Your task to perform on an android device: What's the weather going to be tomorrow? Image 0: 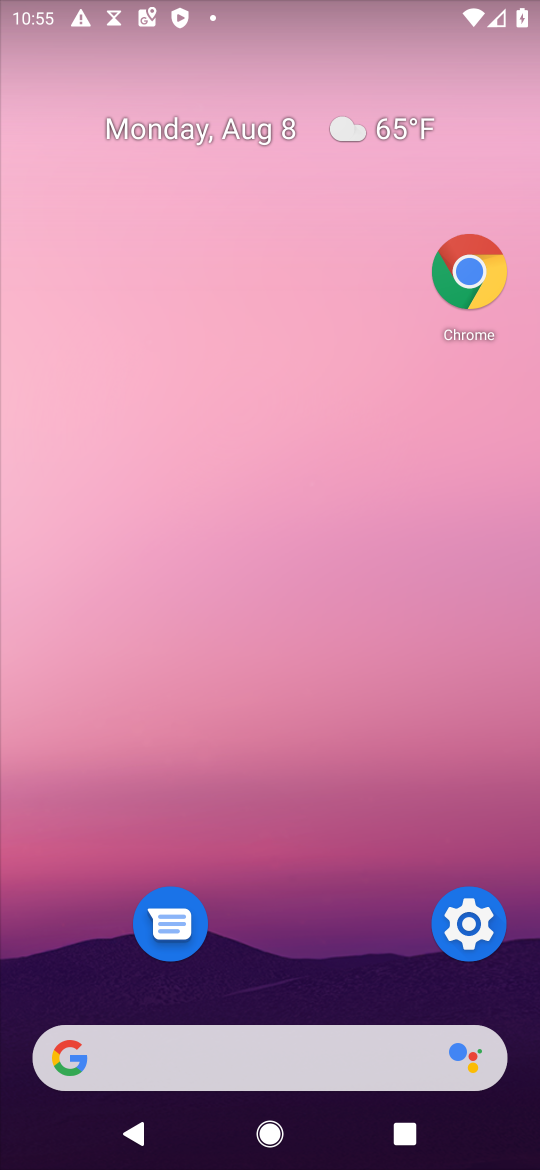
Step 0: click (197, 192)
Your task to perform on an android device: What's the weather going to be tomorrow? Image 1: 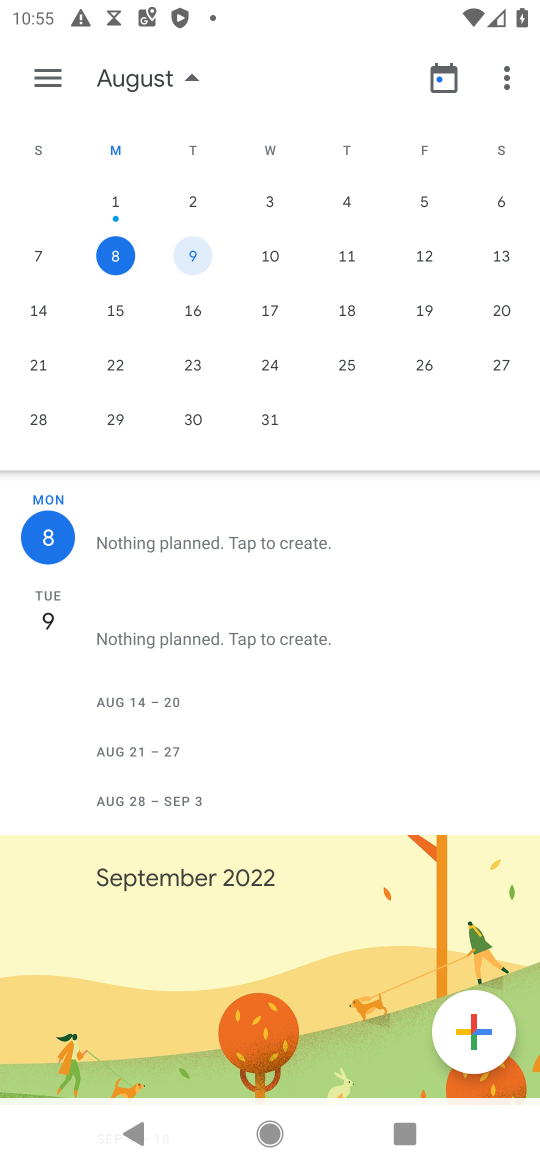
Step 1: click (164, 857)
Your task to perform on an android device: What's the weather going to be tomorrow? Image 2: 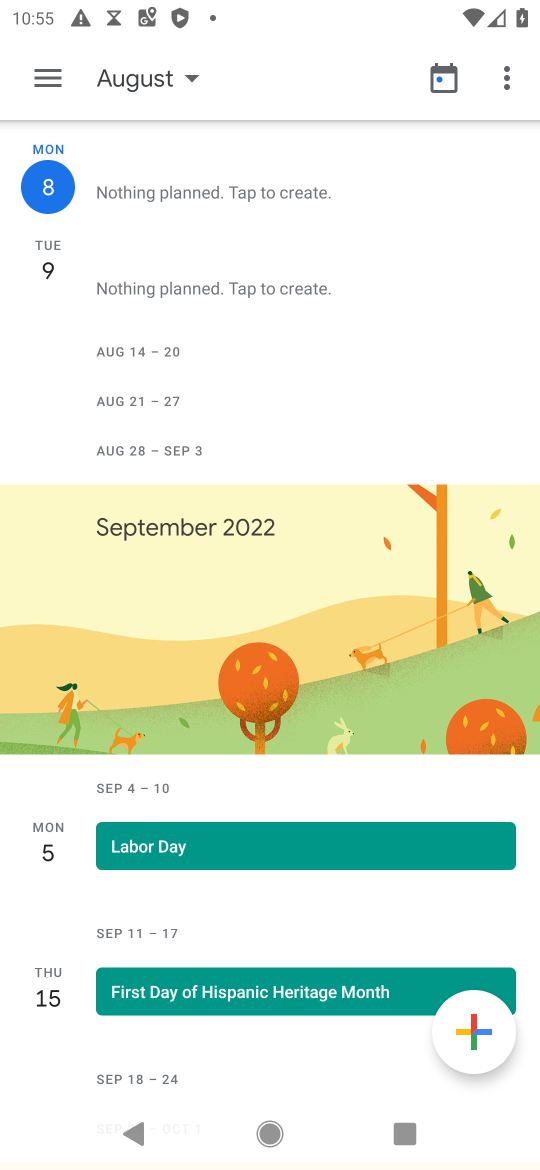
Step 2: press home button
Your task to perform on an android device: What's the weather going to be tomorrow? Image 3: 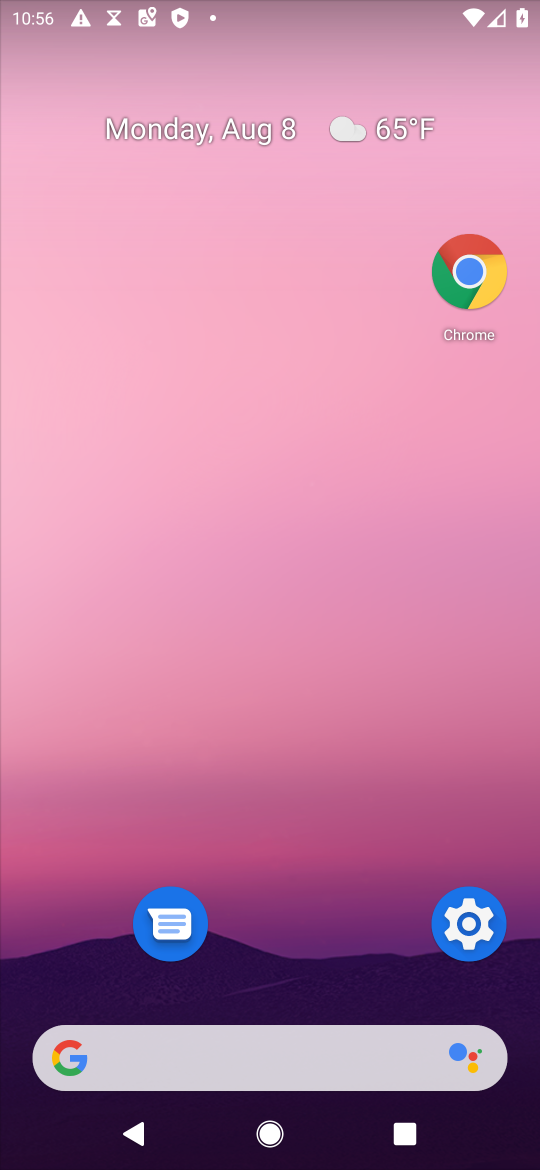
Step 3: click (441, 269)
Your task to perform on an android device: What's the weather going to be tomorrow? Image 4: 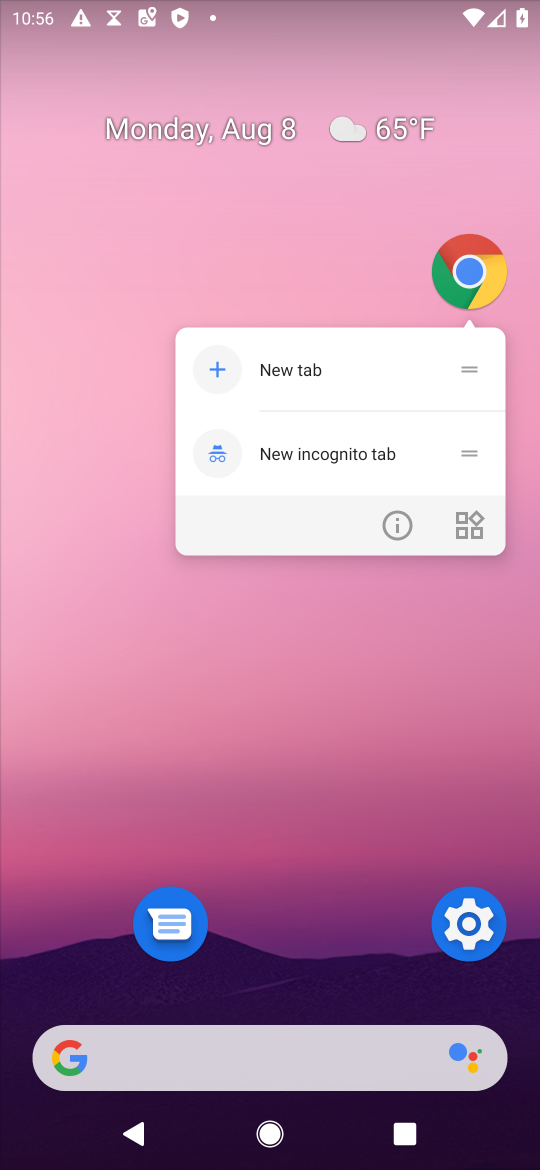
Step 4: click (441, 269)
Your task to perform on an android device: What's the weather going to be tomorrow? Image 5: 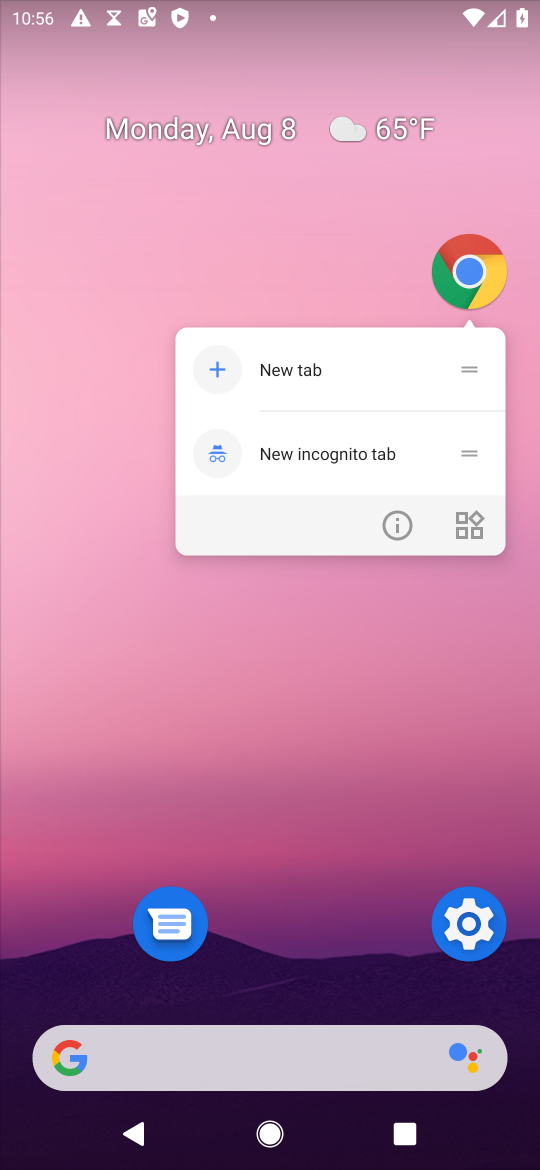
Step 5: click (474, 277)
Your task to perform on an android device: What's the weather going to be tomorrow? Image 6: 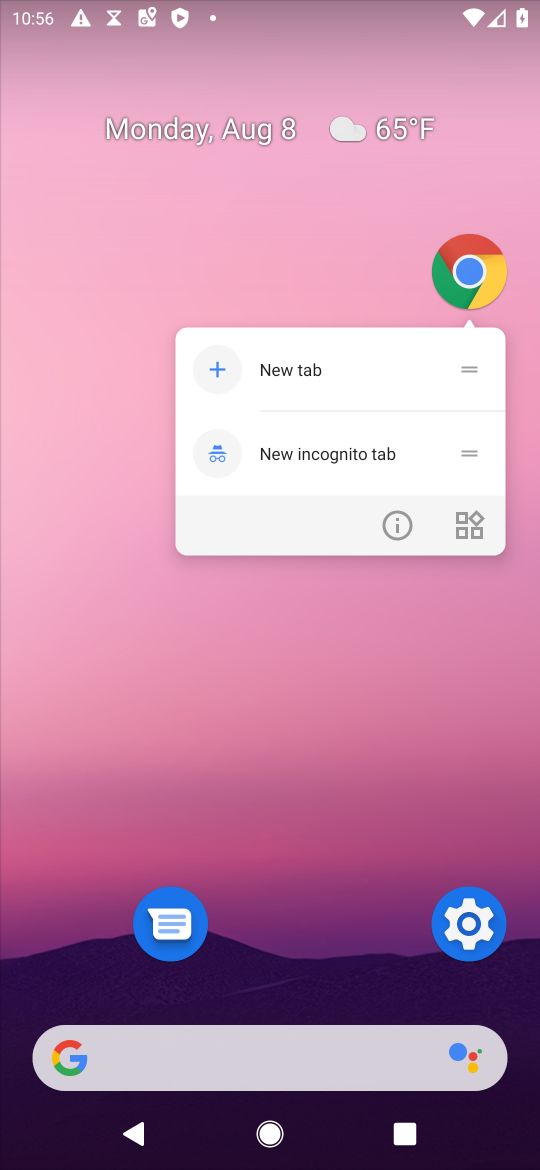
Step 6: click (409, 232)
Your task to perform on an android device: What's the weather going to be tomorrow? Image 7: 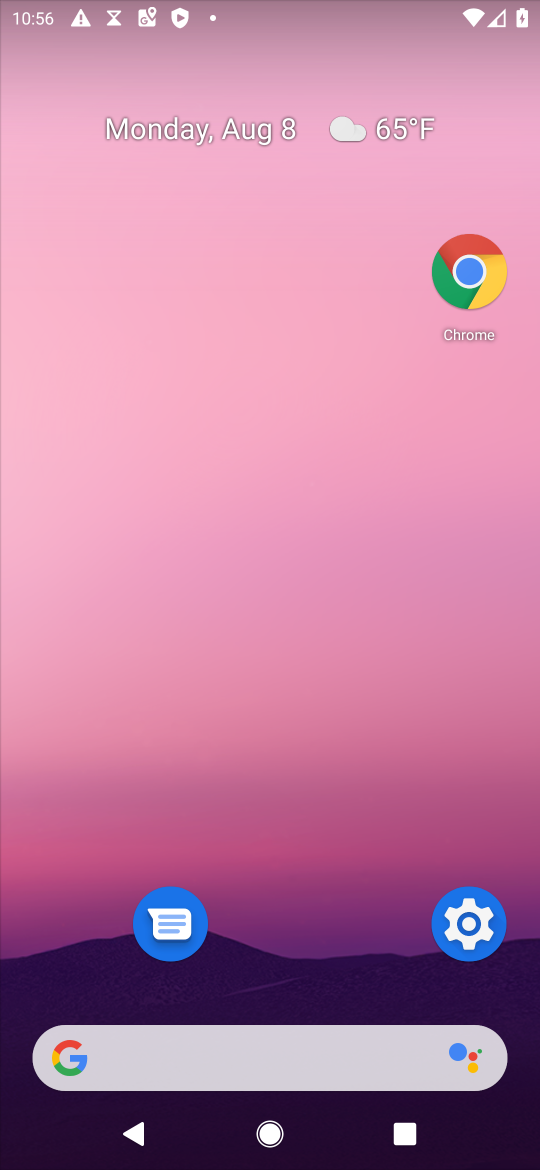
Step 7: click (449, 268)
Your task to perform on an android device: What's the weather going to be tomorrow? Image 8: 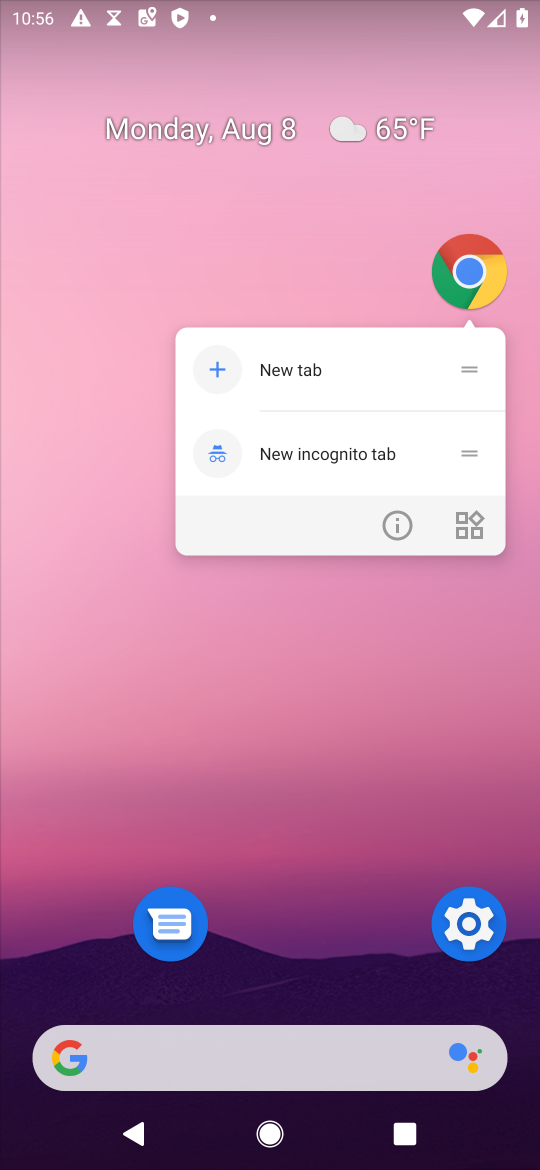
Step 8: click (449, 268)
Your task to perform on an android device: What's the weather going to be tomorrow? Image 9: 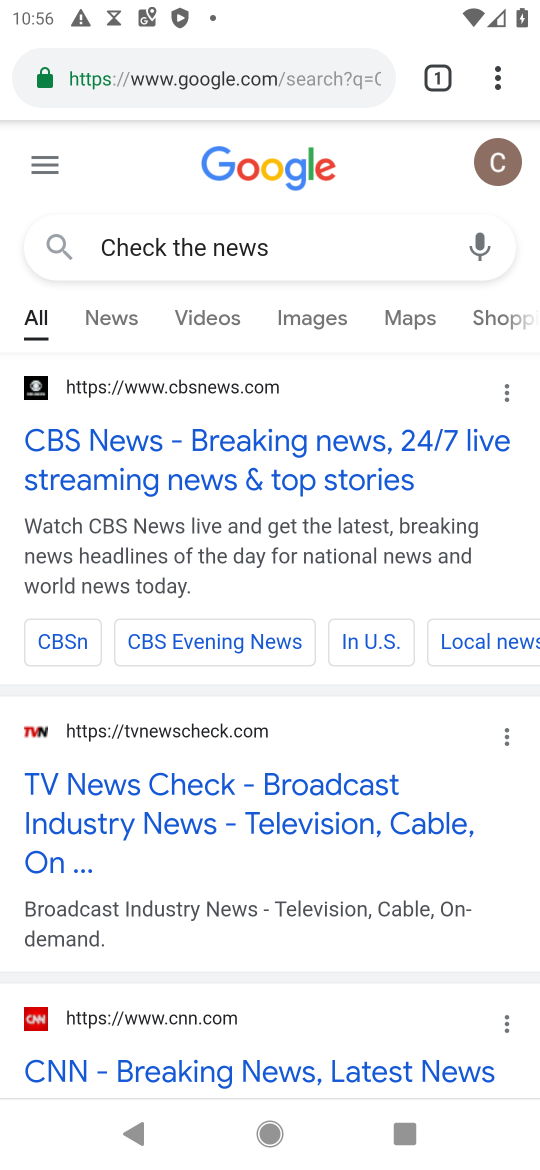
Step 9: click (209, 79)
Your task to perform on an android device: What's the weather going to be tomorrow? Image 10: 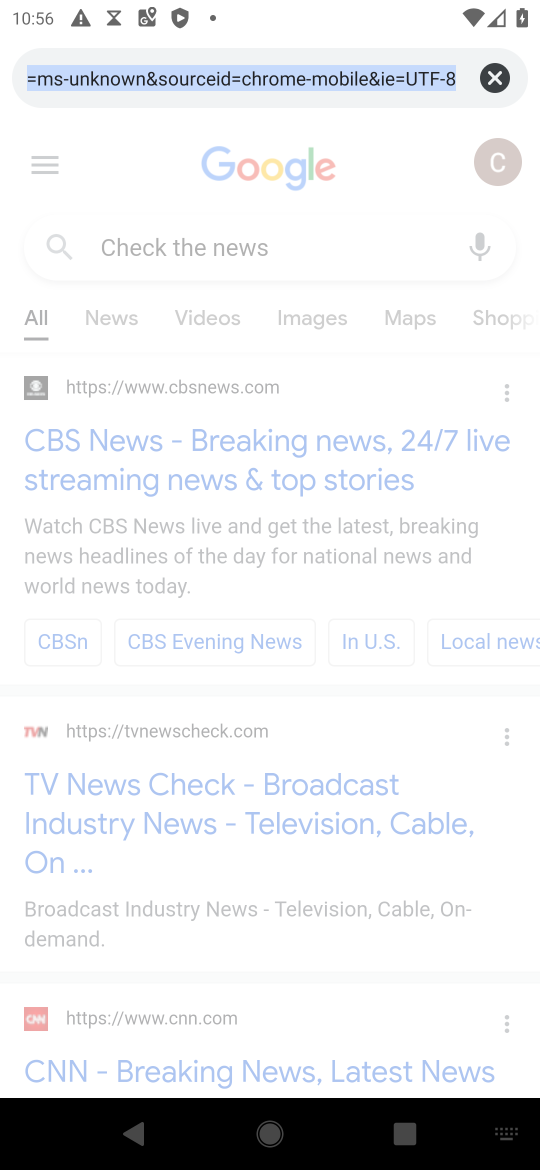
Step 10: type "What's the weather going to be tomorrow?"
Your task to perform on an android device: What's the weather going to be tomorrow? Image 11: 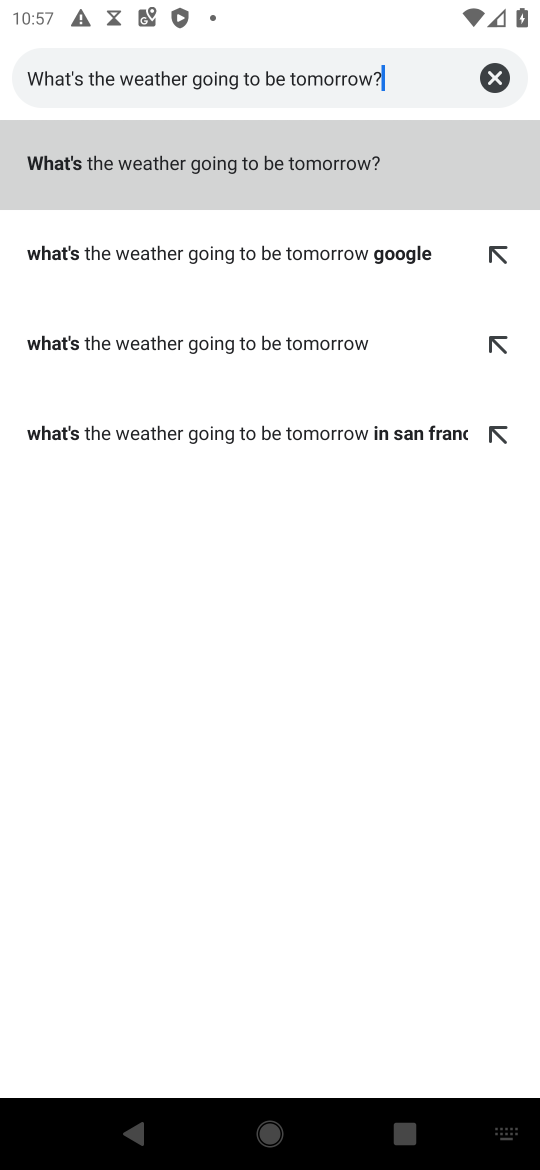
Step 11: type ""
Your task to perform on an android device: What's the weather going to be tomorrow? Image 12: 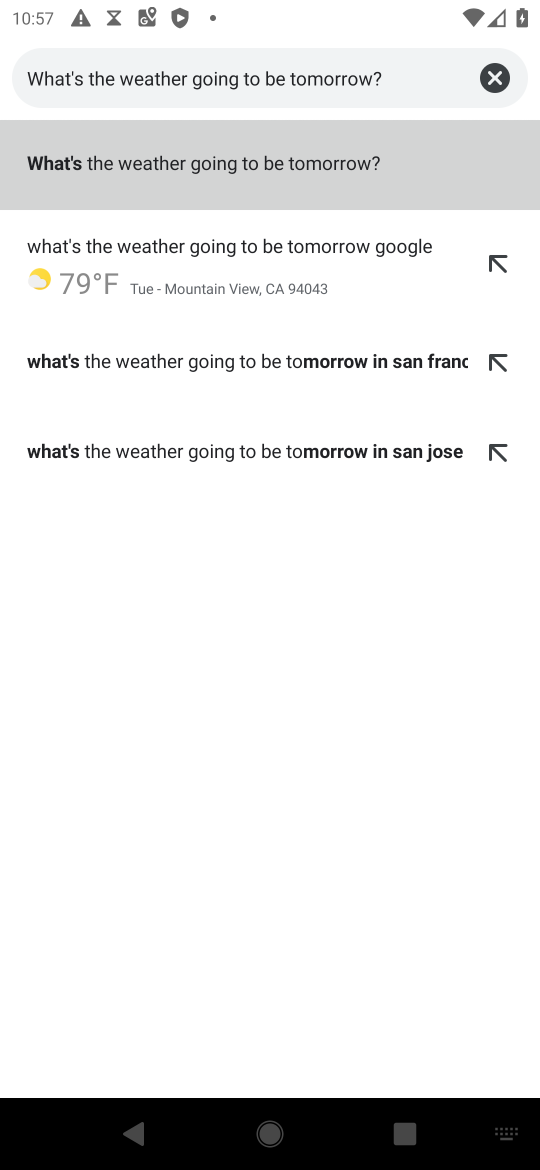
Step 12: click (119, 166)
Your task to perform on an android device: What's the weather going to be tomorrow? Image 13: 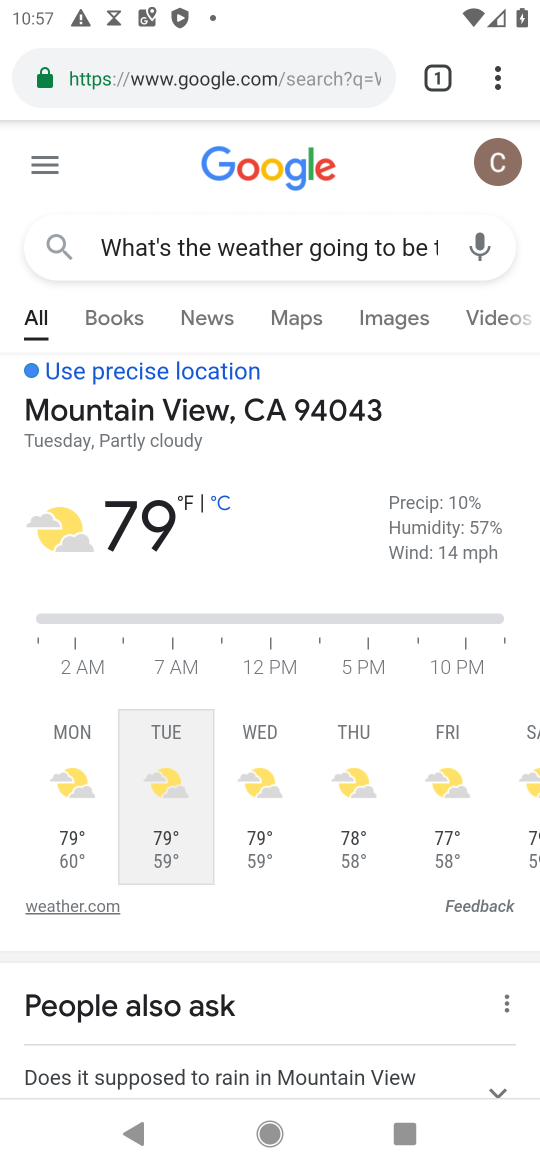
Step 13: task complete